Your task to perform on an android device: Search for Italian restaurants on Maps Image 0: 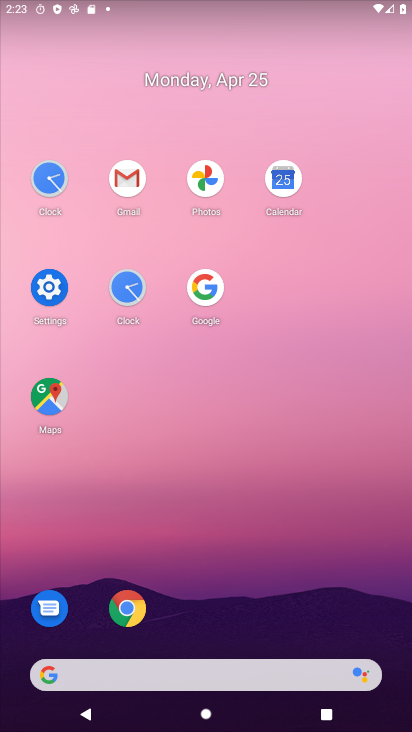
Step 0: click (46, 402)
Your task to perform on an android device: Search for Italian restaurants on Maps Image 1: 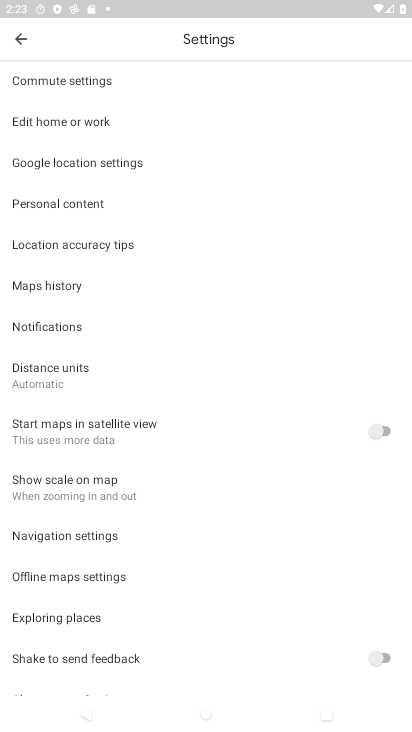
Step 1: click (19, 43)
Your task to perform on an android device: Search for Italian restaurants on Maps Image 2: 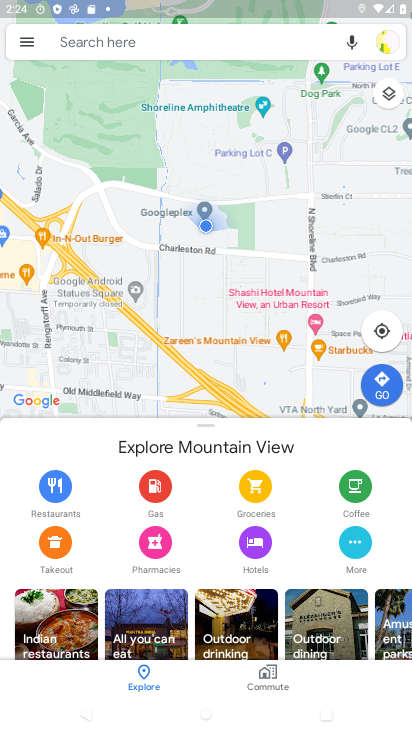
Step 2: click (146, 35)
Your task to perform on an android device: Search for Italian restaurants on Maps Image 3: 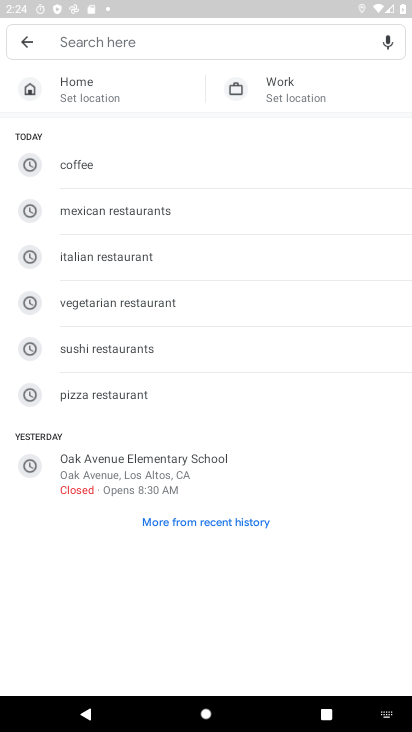
Step 3: type "italian restaurants"
Your task to perform on an android device: Search for Italian restaurants on Maps Image 4: 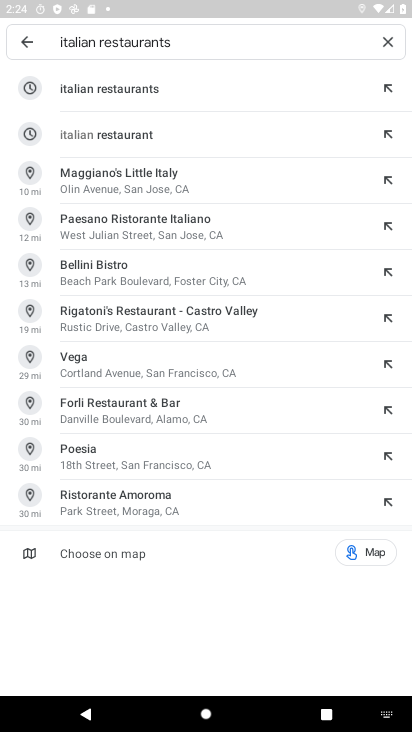
Step 4: task complete